Your task to perform on an android device: empty trash in google photos Image 0: 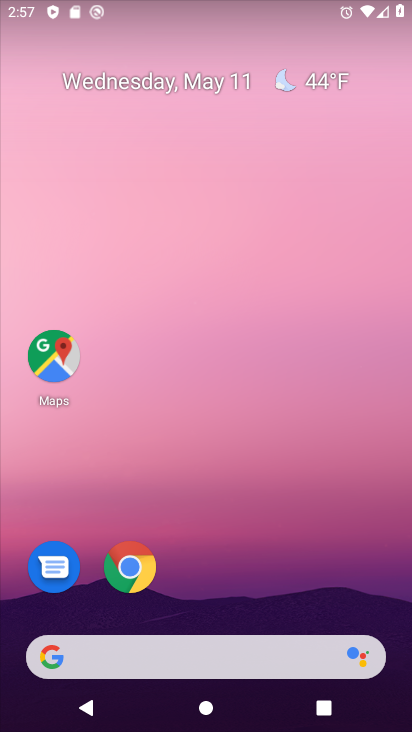
Step 0: drag from (222, 527) to (214, 127)
Your task to perform on an android device: empty trash in google photos Image 1: 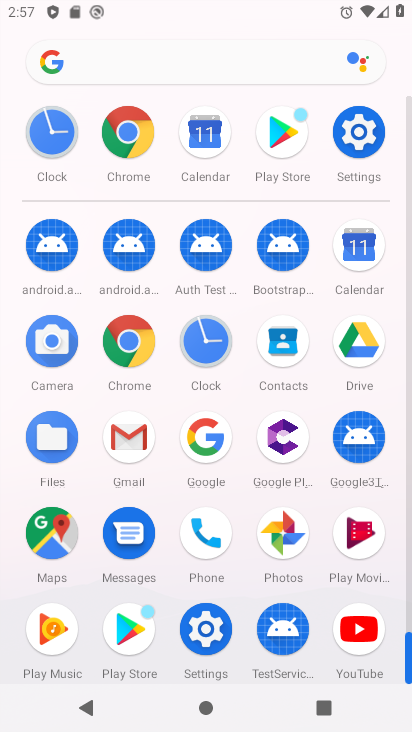
Step 1: drag from (7, 477) to (13, 223)
Your task to perform on an android device: empty trash in google photos Image 2: 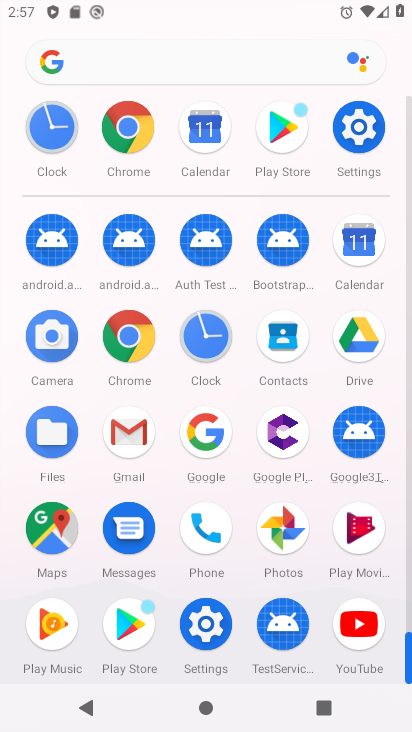
Step 2: click (279, 523)
Your task to perform on an android device: empty trash in google photos Image 3: 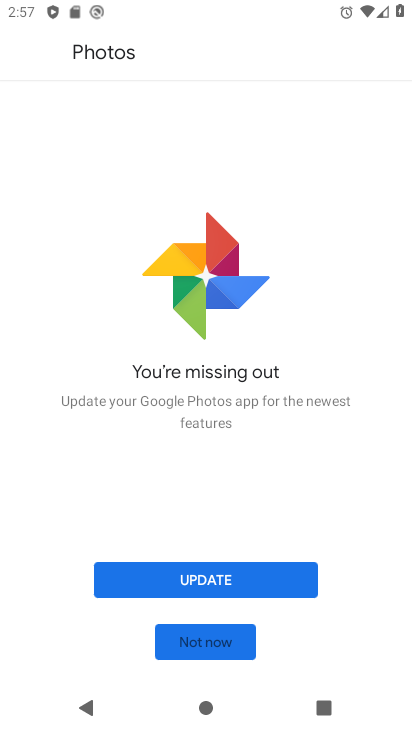
Step 3: click (232, 572)
Your task to perform on an android device: empty trash in google photos Image 4: 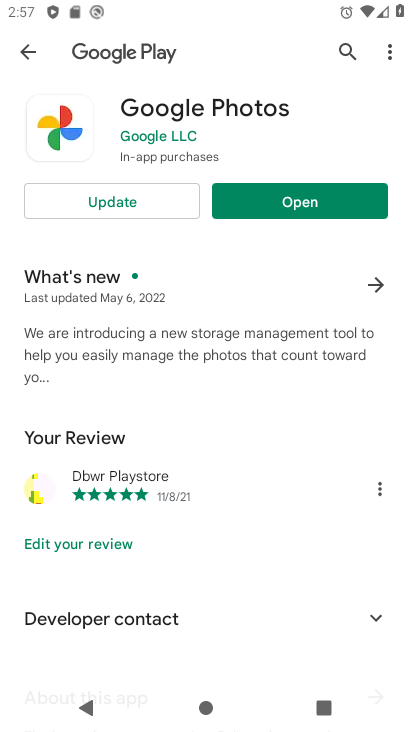
Step 4: click (140, 206)
Your task to perform on an android device: empty trash in google photos Image 5: 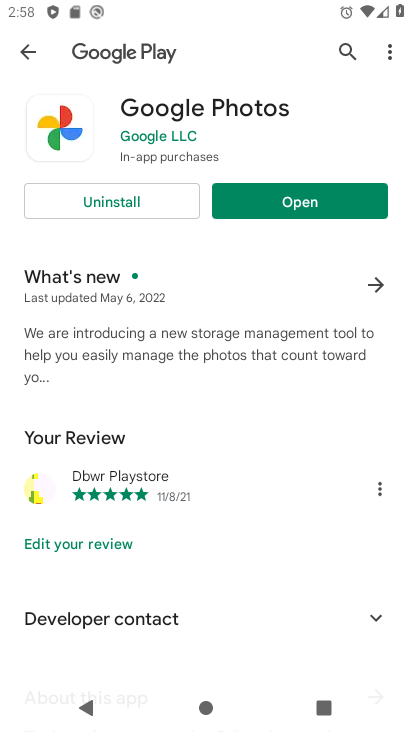
Step 5: click (261, 209)
Your task to perform on an android device: empty trash in google photos Image 6: 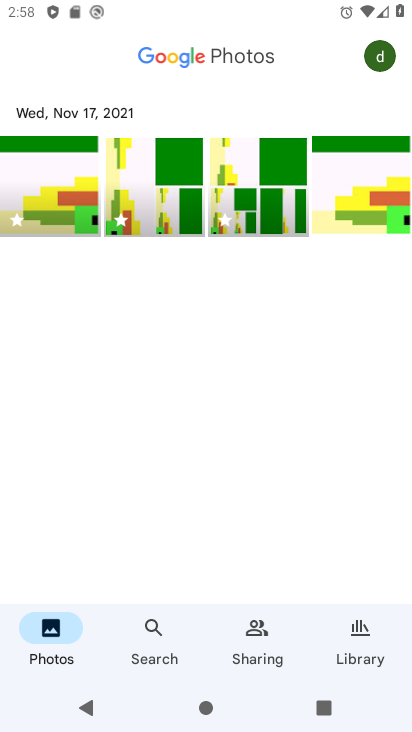
Step 6: click (360, 655)
Your task to perform on an android device: empty trash in google photos Image 7: 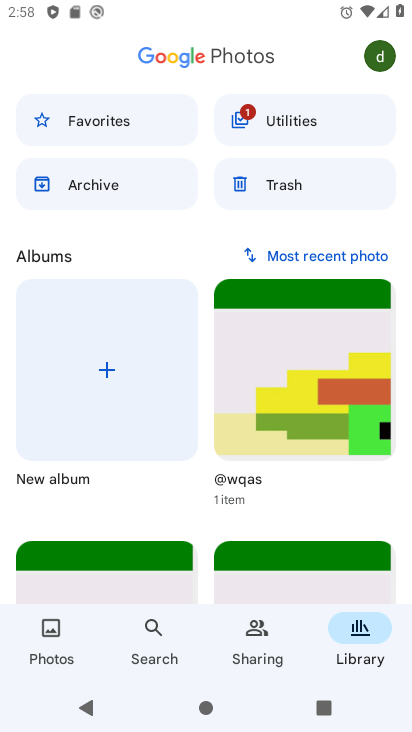
Step 7: click (287, 180)
Your task to perform on an android device: empty trash in google photos Image 8: 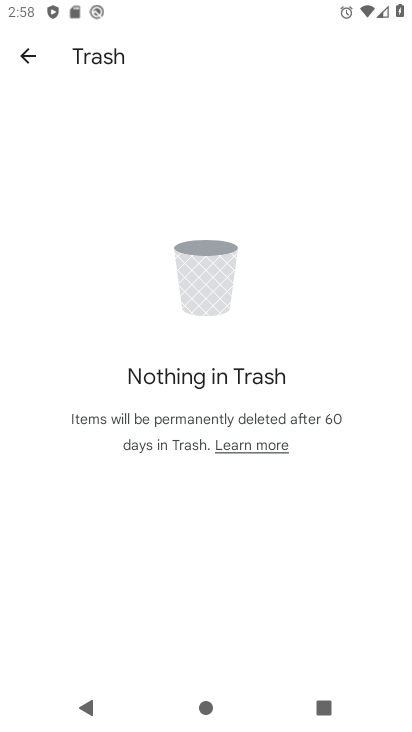
Step 8: task complete